Your task to perform on an android device: toggle show notifications on the lock screen Image 0: 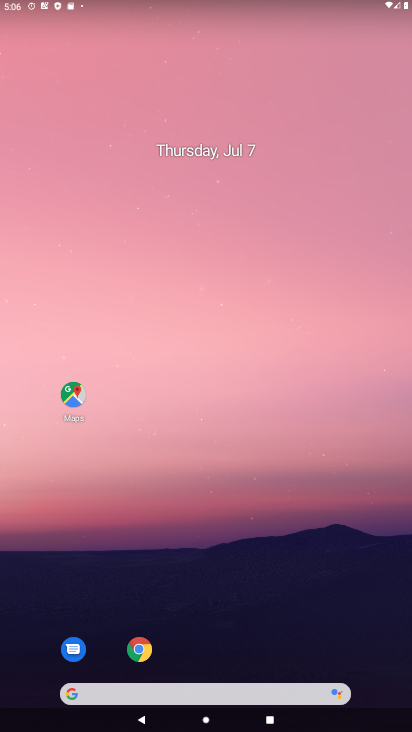
Step 0: drag from (354, 631) to (141, 19)
Your task to perform on an android device: toggle show notifications on the lock screen Image 1: 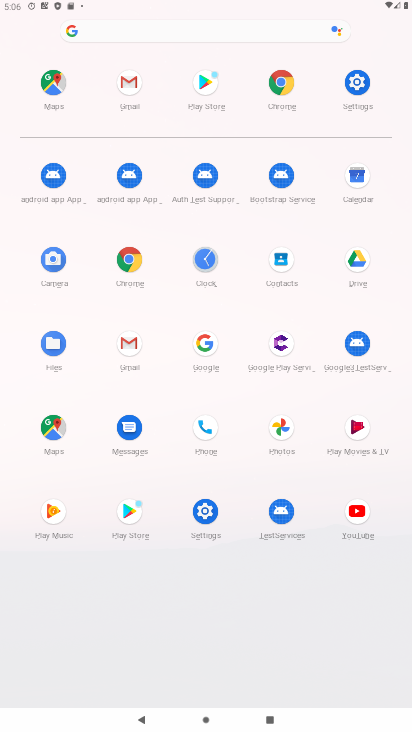
Step 1: click (363, 89)
Your task to perform on an android device: toggle show notifications on the lock screen Image 2: 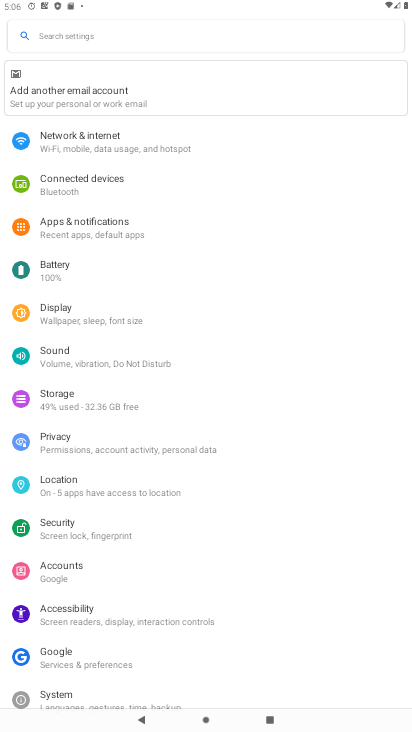
Step 2: click (108, 234)
Your task to perform on an android device: toggle show notifications on the lock screen Image 3: 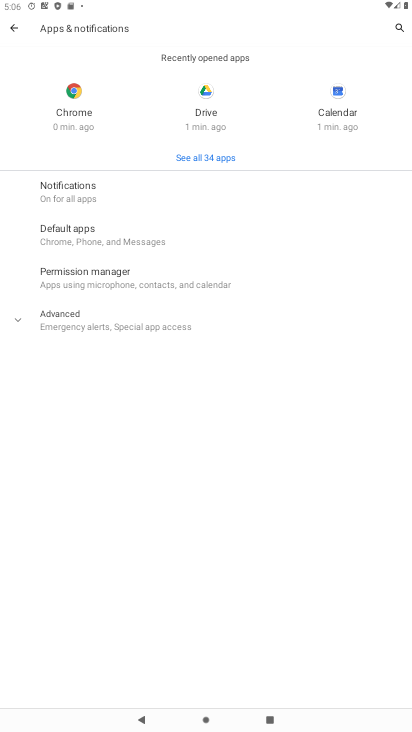
Step 3: click (86, 300)
Your task to perform on an android device: toggle show notifications on the lock screen Image 4: 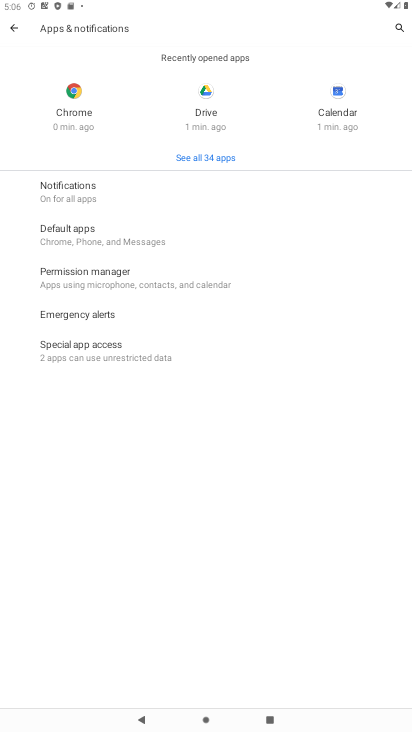
Step 4: click (82, 190)
Your task to perform on an android device: toggle show notifications on the lock screen Image 5: 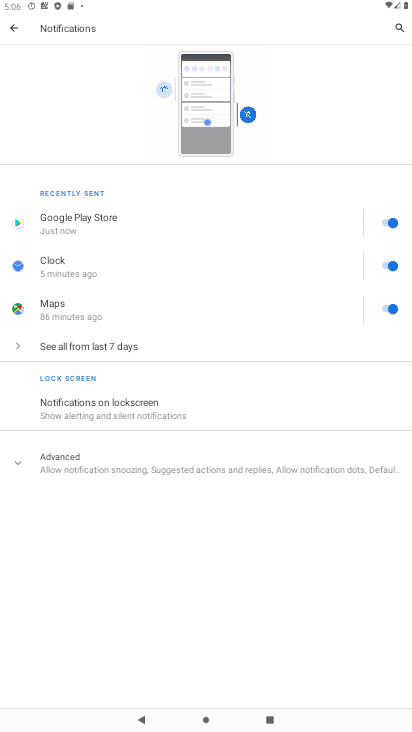
Step 5: click (213, 404)
Your task to perform on an android device: toggle show notifications on the lock screen Image 6: 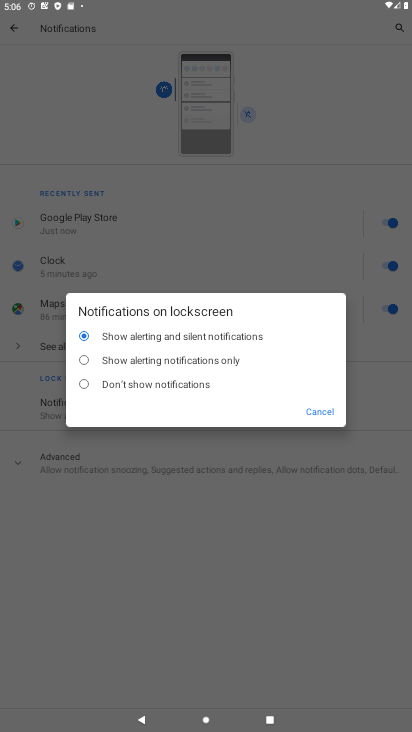
Step 6: click (84, 380)
Your task to perform on an android device: toggle show notifications on the lock screen Image 7: 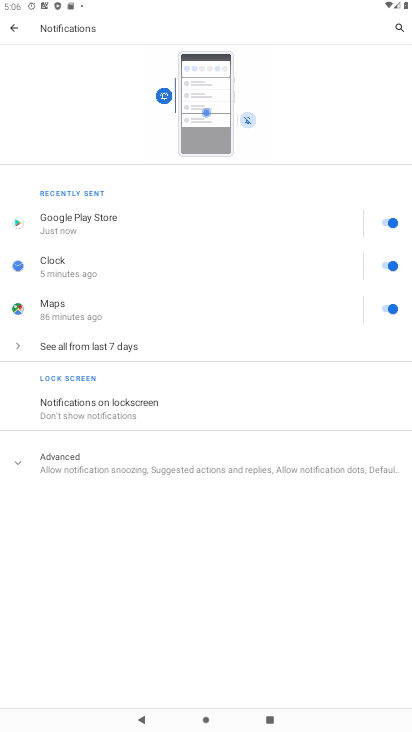
Step 7: task complete